Your task to perform on an android device: stop showing notifications on the lock screen Image 0: 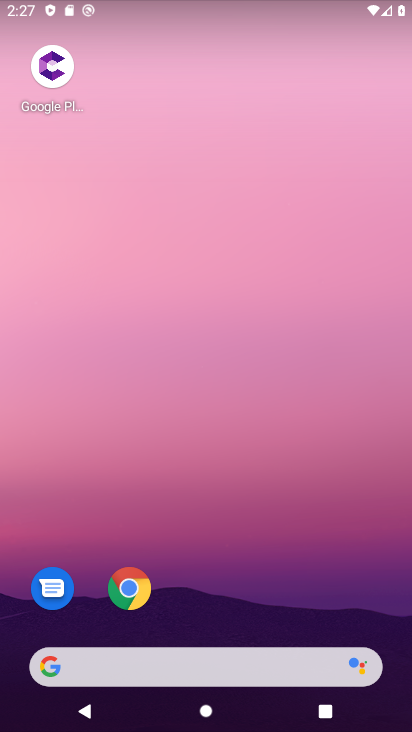
Step 0: drag from (305, 635) to (265, 207)
Your task to perform on an android device: stop showing notifications on the lock screen Image 1: 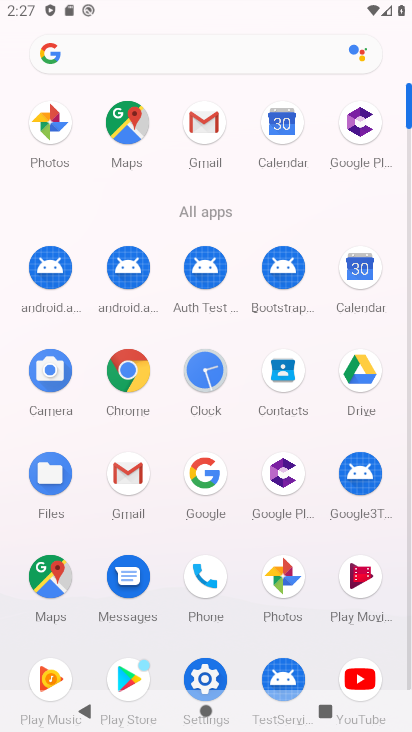
Step 1: click (206, 682)
Your task to perform on an android device: stop showing notifications on the lock screen Image 2: 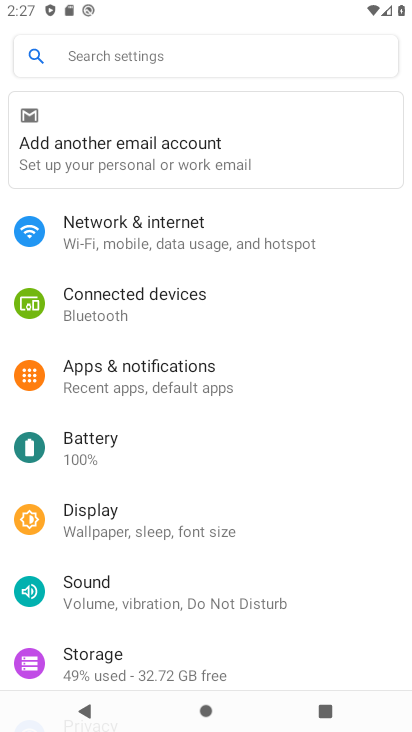
Step 2: click (126, 390)
Your task to perform on an android device: stop showing notifications on the lock screen Image 3: 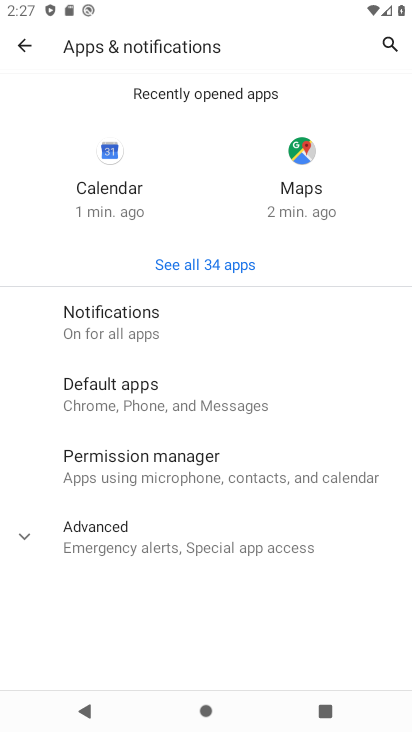
Step 3: click (148, 326)
Your task to perform on an android device: stop showing notifications on the lock screen Image 4: 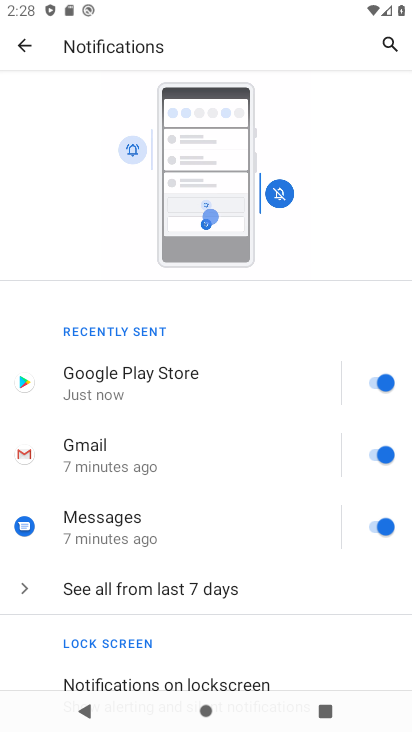
Step 4: drag from (157, 635) to (149, 358)
Your task to perform on an android device: stop showing notifications on the lock screen Image 5: 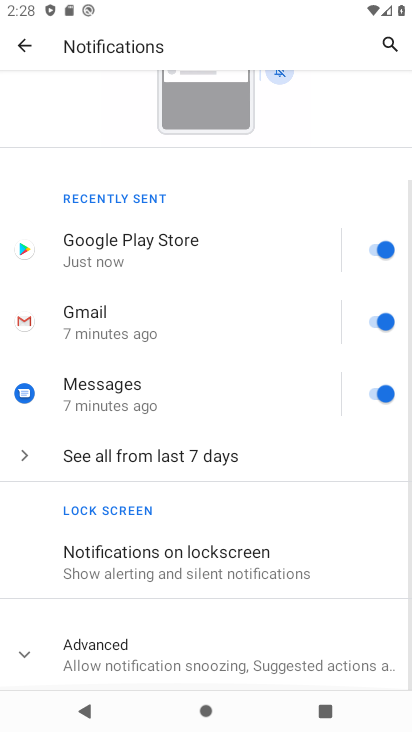
Step 5: click (145, 553)
Your task to perform on an android device: stop showing notifications on the lock screen Image 6: 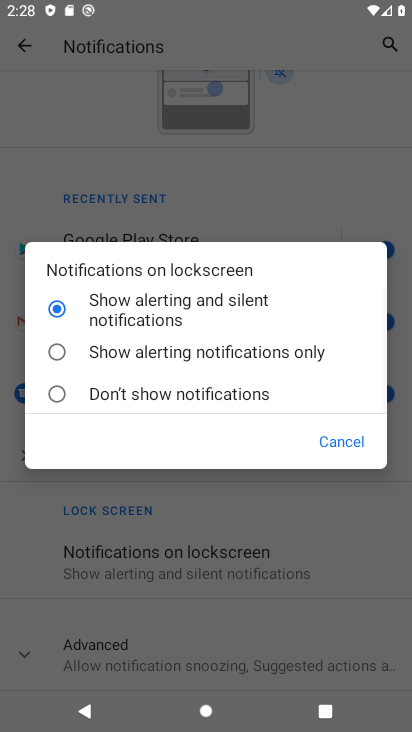
Step 6: click (153, 389)
Your task to perform on an android device: stop showing notifications on the lock screen Image 7: 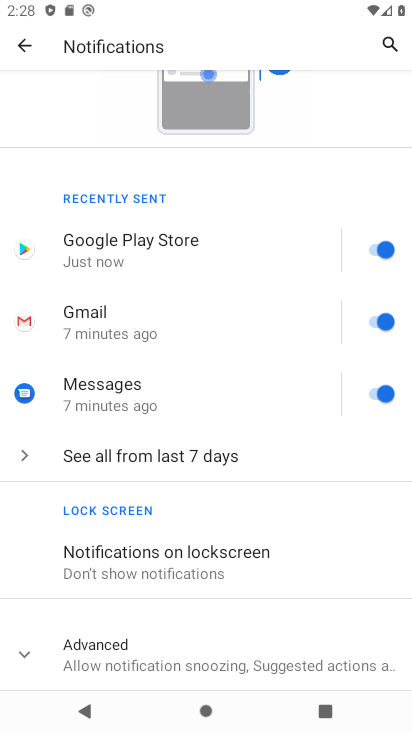
Step 7: task complete